Your task to perform on an android device: Play the last video I watched on Youtube Image 0: 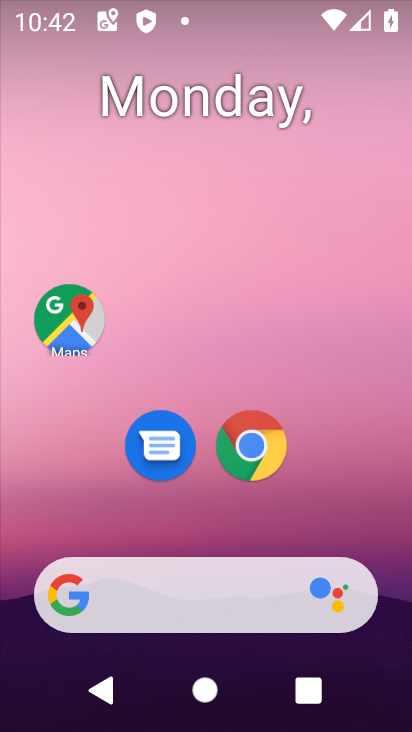
Step 0: drag from (237, 539) to (306, 173)
Your task to perform on an android device: Play the last video I watched on Youtube Image 1: 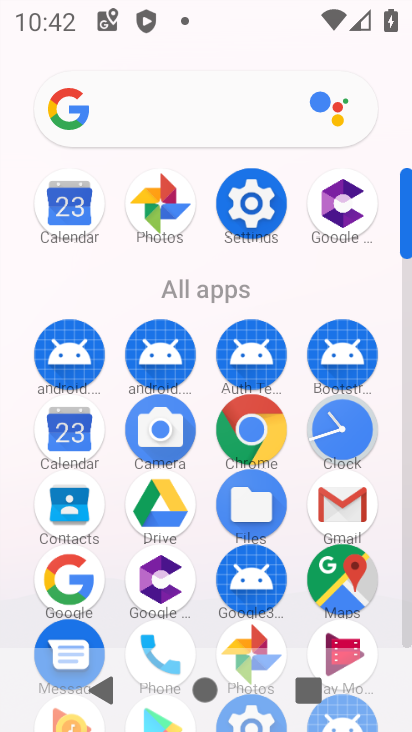
Step 1: drag from (293, 513) to (336, 157)
Your task to perform on an android device: Play the last video I watched on Youtube Image 2: 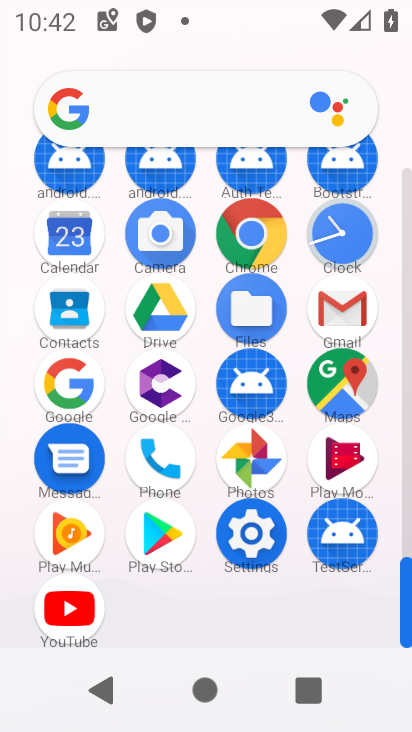
Step 2: click (62, 602)
Your task to perform on an android device: Play the last video I watched on Youtube Image 3: 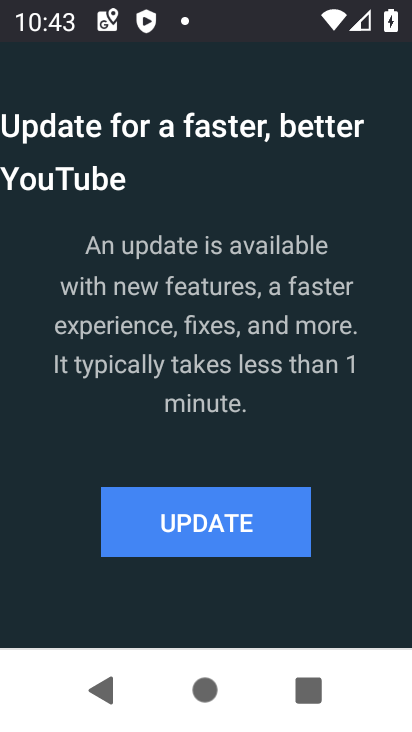
Step 3: click (256, 528)
Your task to perform on an android device: Play the last video I watched on Youtube Image 4: 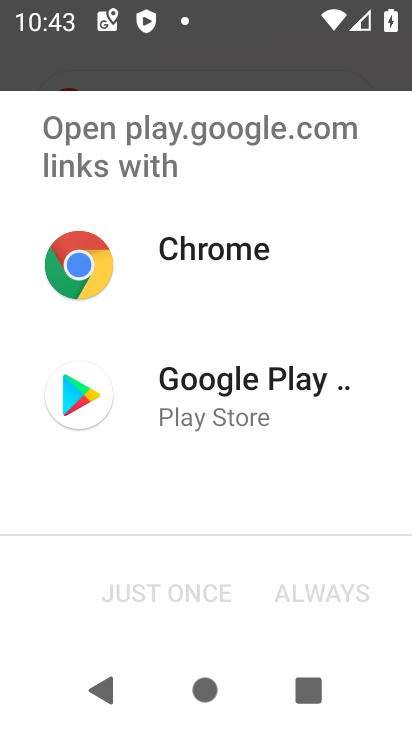
Step 4: click (245, 393)
Your task to perform on an android device: Play the last video I watched on Youtube Image 5: 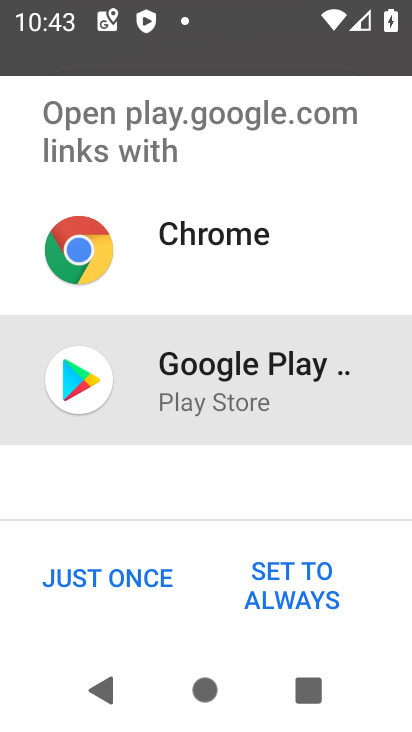
Step 5: click (153, 583)
Your task to perform on an android device: Play the last video I watched on Youtube Image 6: 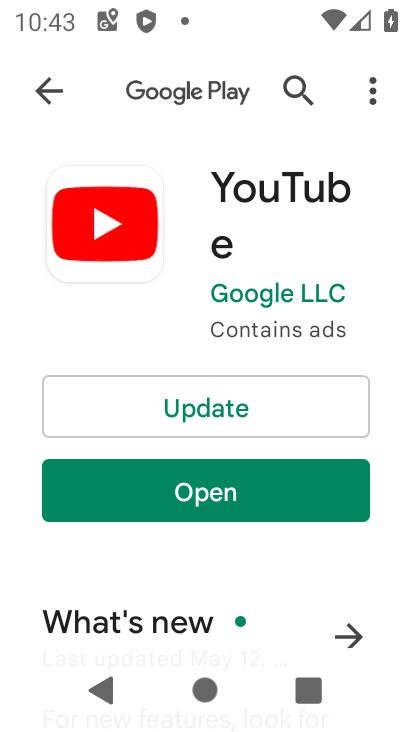
Step 6: click (218, 417)
Your task to perform on an android device: Play the last video I watched on Youtube Image 7: 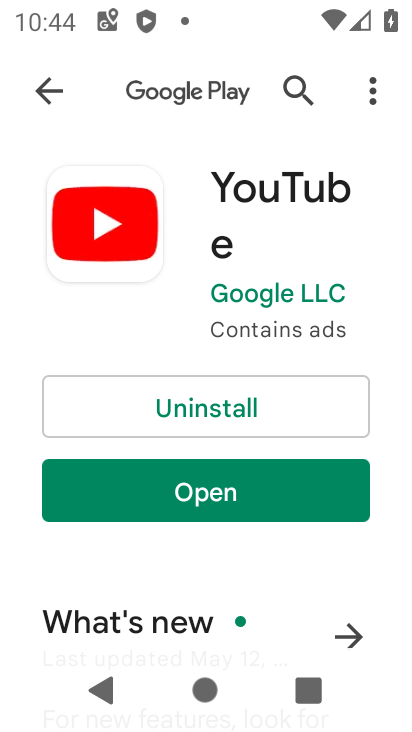
Step 7: click (241, 502)
Your task to perform on an android device: Play the last video I watched on Youtube Image 8: 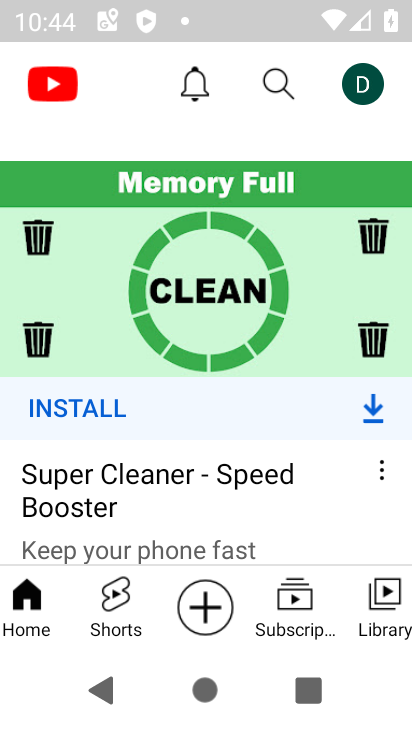
Step 8: click (385, 624)
Your task to perform on an android device: Play the last video I watched on Youtube Image 9: 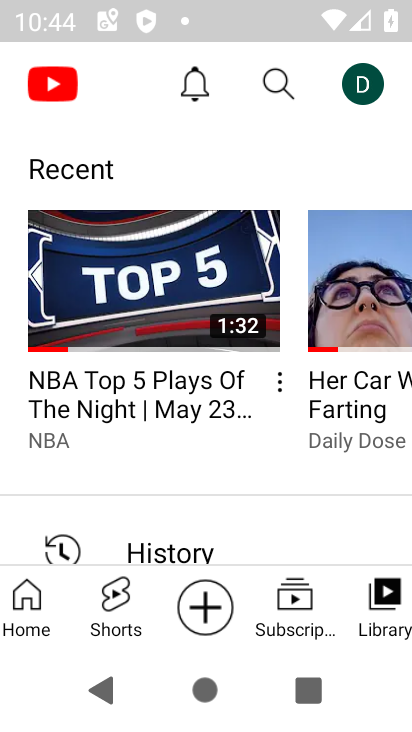
Step 9: click (100, 322)
Your task to perform on an android device: Play the last video I watched on Youtube Image 10: 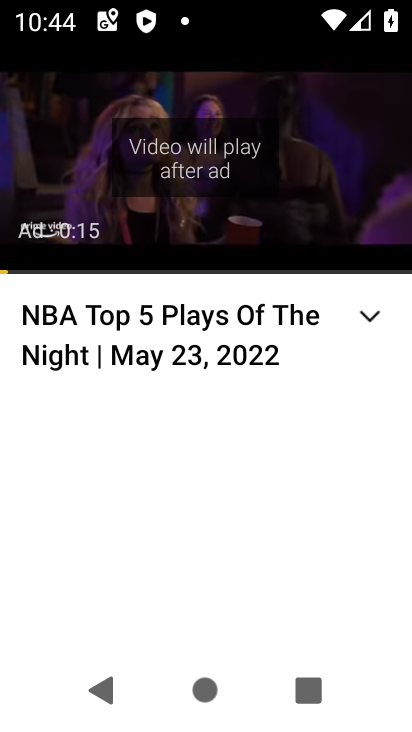
Step 10: task complete